Your task to perform on an android device: Search for the best Nike running shoes on Nike.com Image 0: 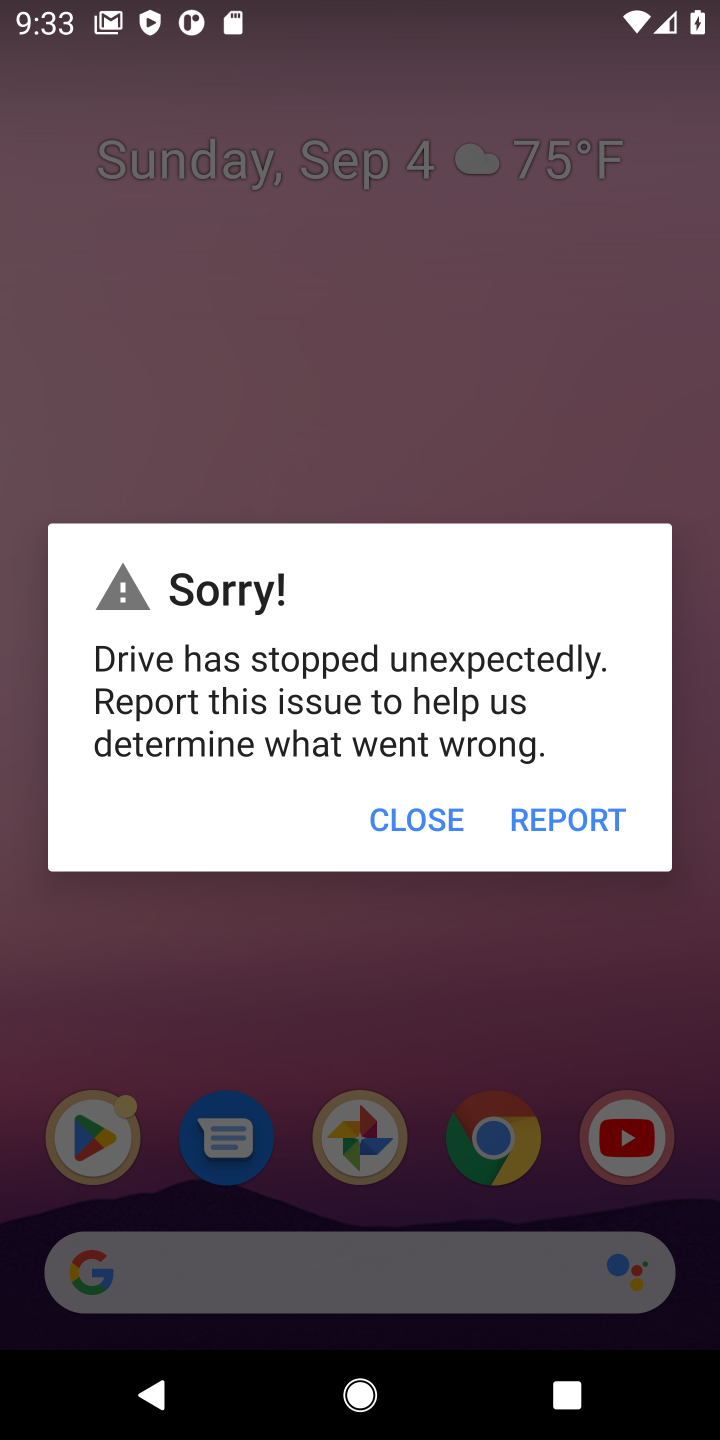
Step 0: press home button
Your task to perform on an android device: Search for the best Nike running shoes on Nike.com Image 1: 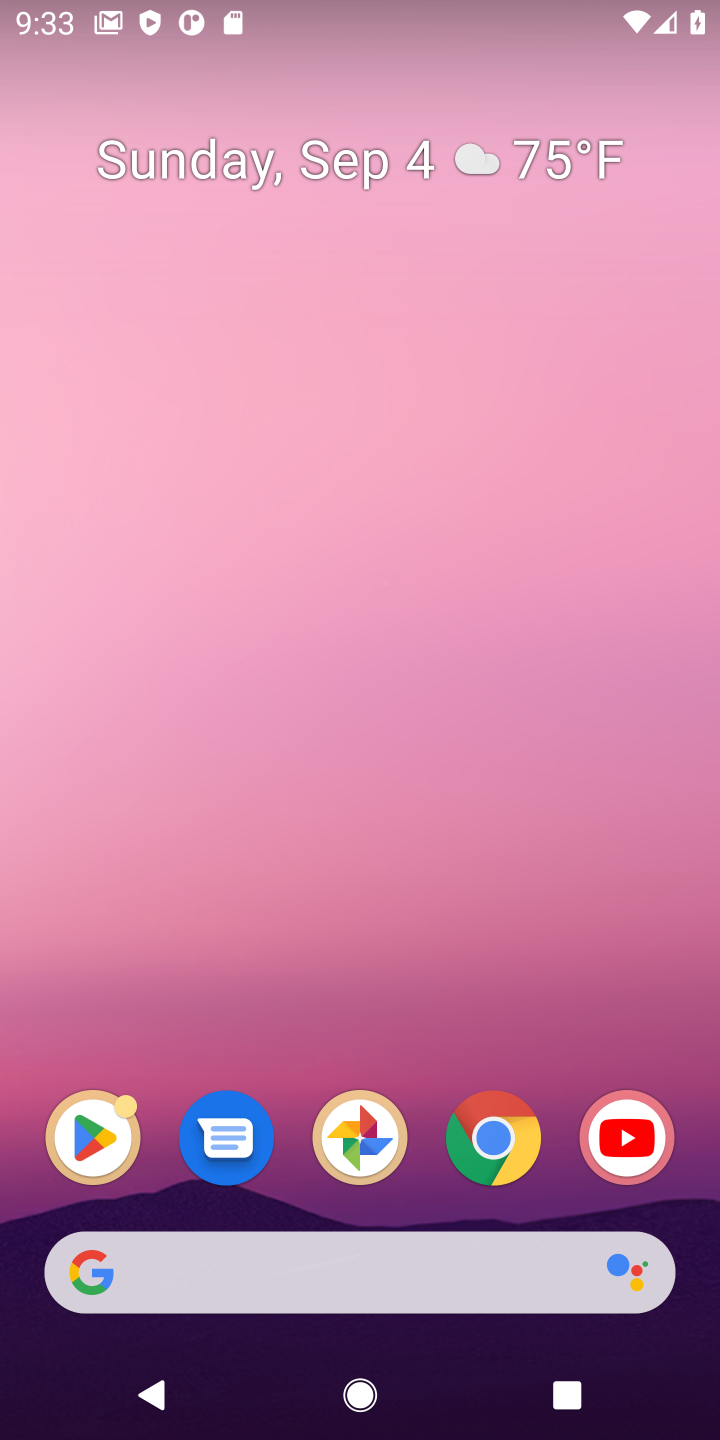
Step 1: click (505, 1138)
Your task to perform on an android device: Search for the best Nike running shoes on Nike.com Image 2: 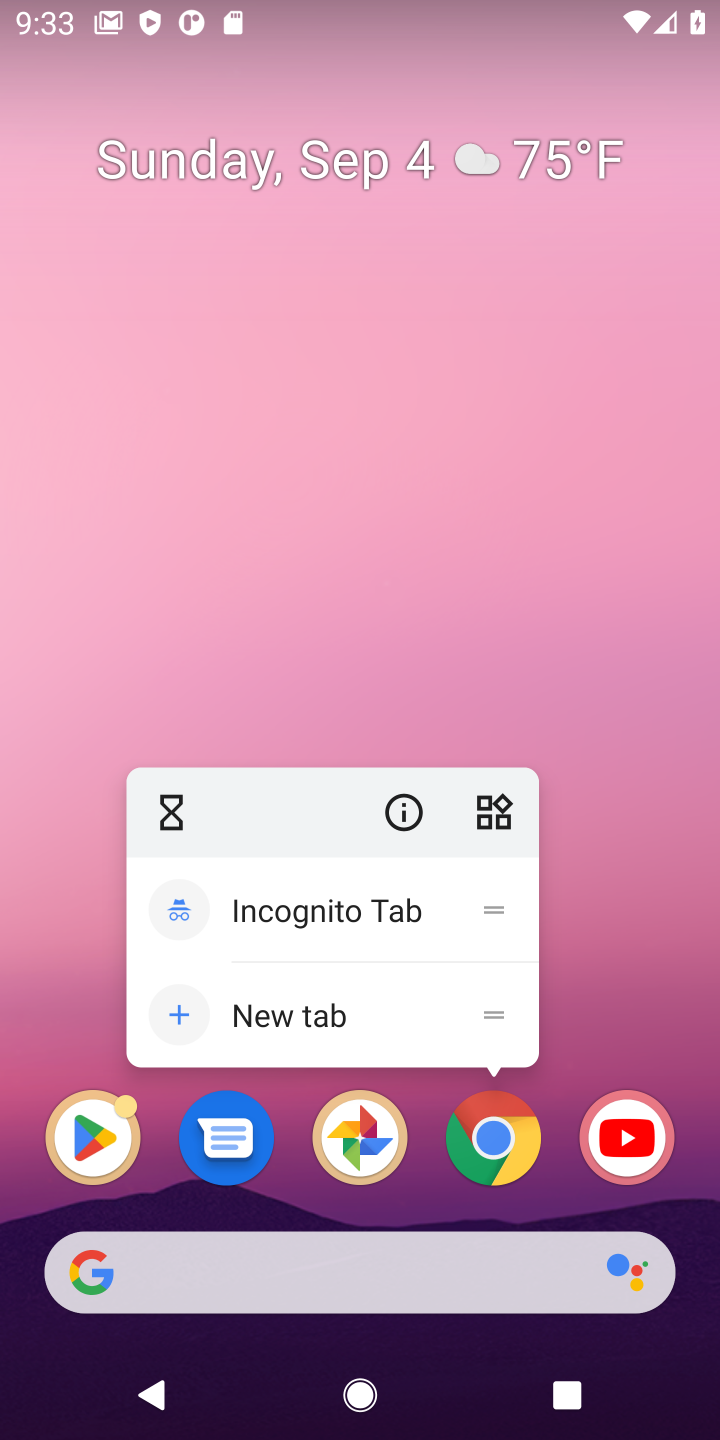
Step 2: click (501, 1144)
Your task to perform on an android device: Search for the best Nike running shoes on Nike.com Image 3: 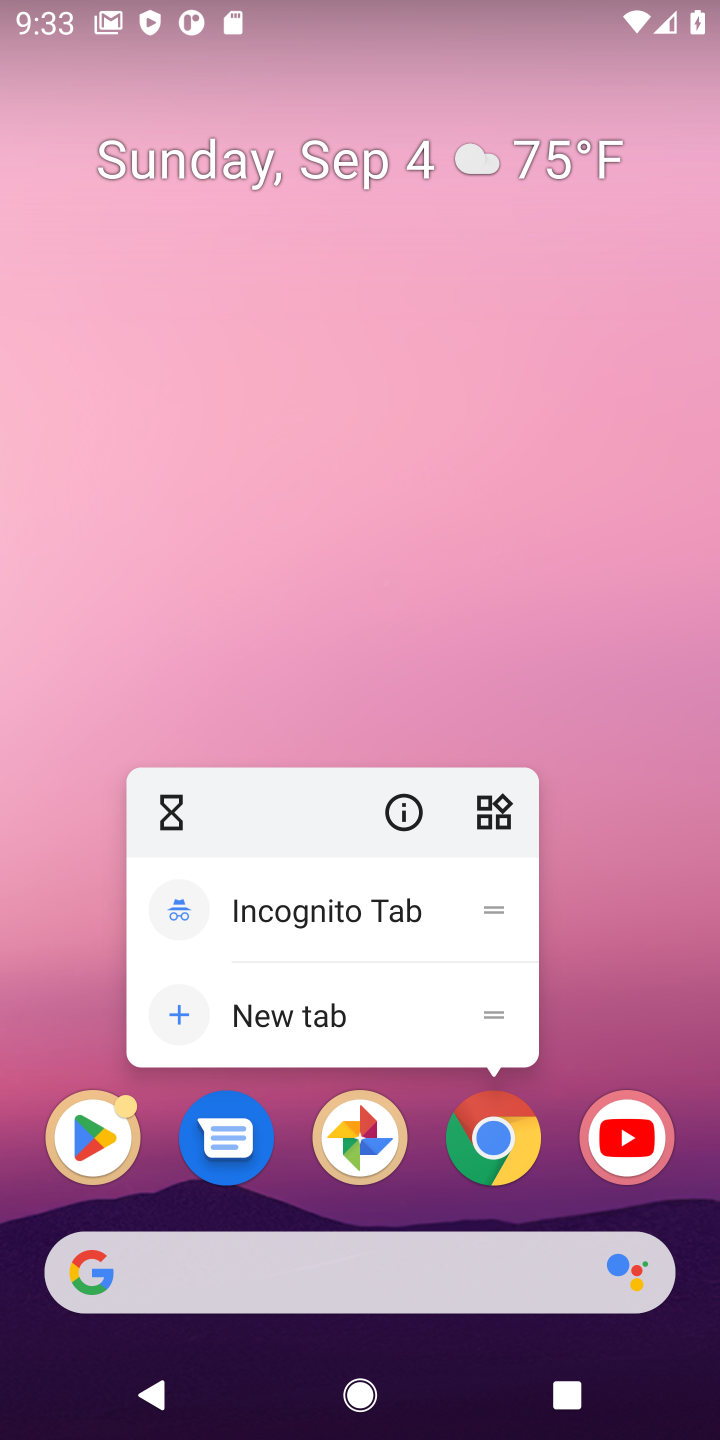
Step 3: click (501, 1144)
Your task to perform on an android device: Search for the best Nike running shoes on Nike.com Image 4: 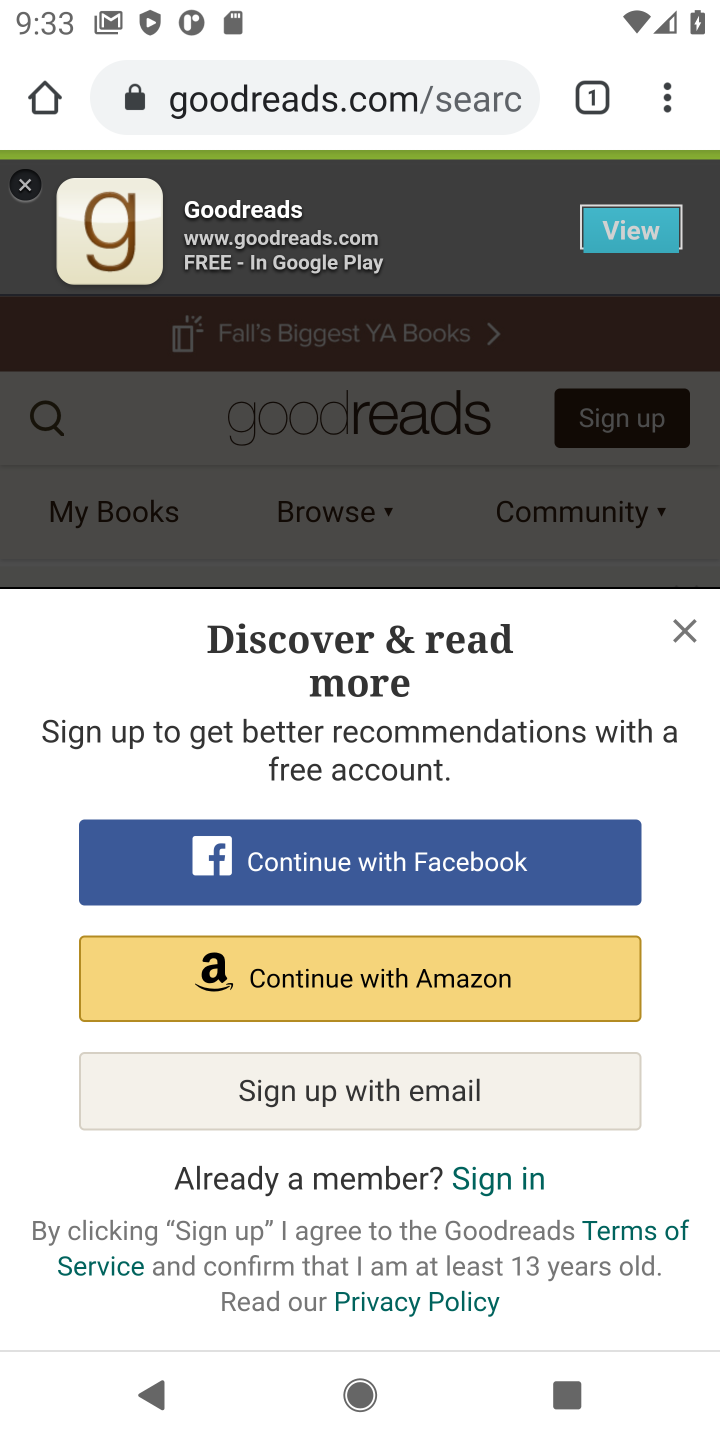
Step 4: click (295, 96)
Your task to perform on an android device: Search for the best Nike running shoes on Nike.com Image 5: 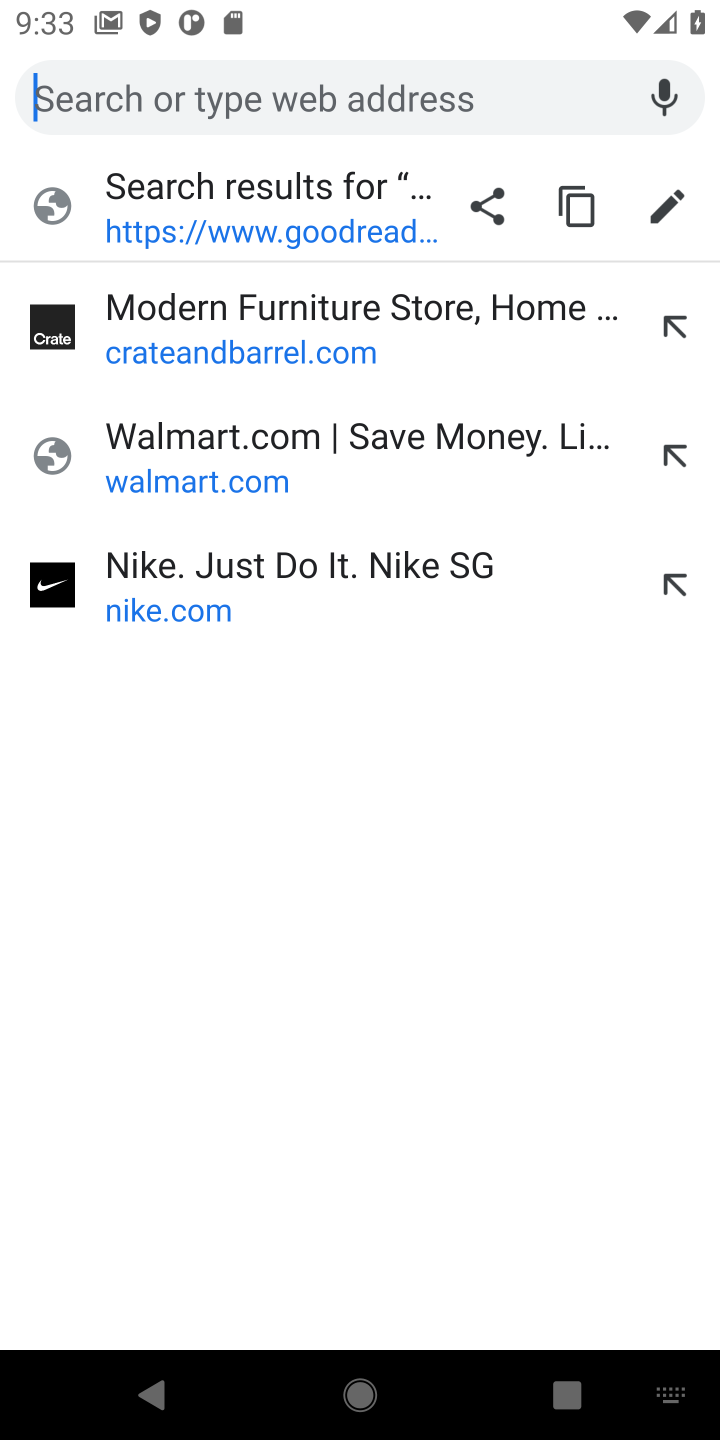
Step 5: type "nike.com"
Your task to perform on an android device: Search for the best Nike running shoes on Nike.com Image 6: 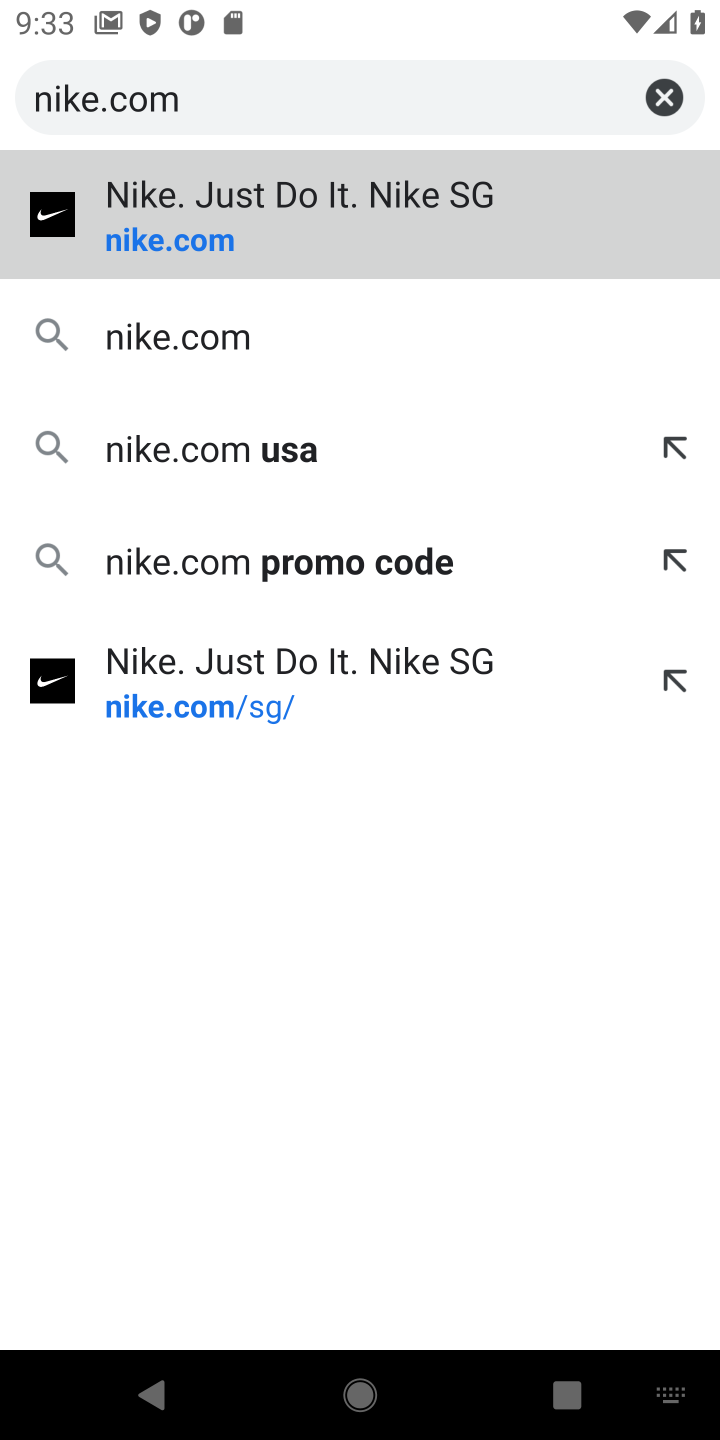
Step 6: click (354, 250)
Your task to perform on an android device: Search for the best Nike running shoes on Nike.com Image 7: 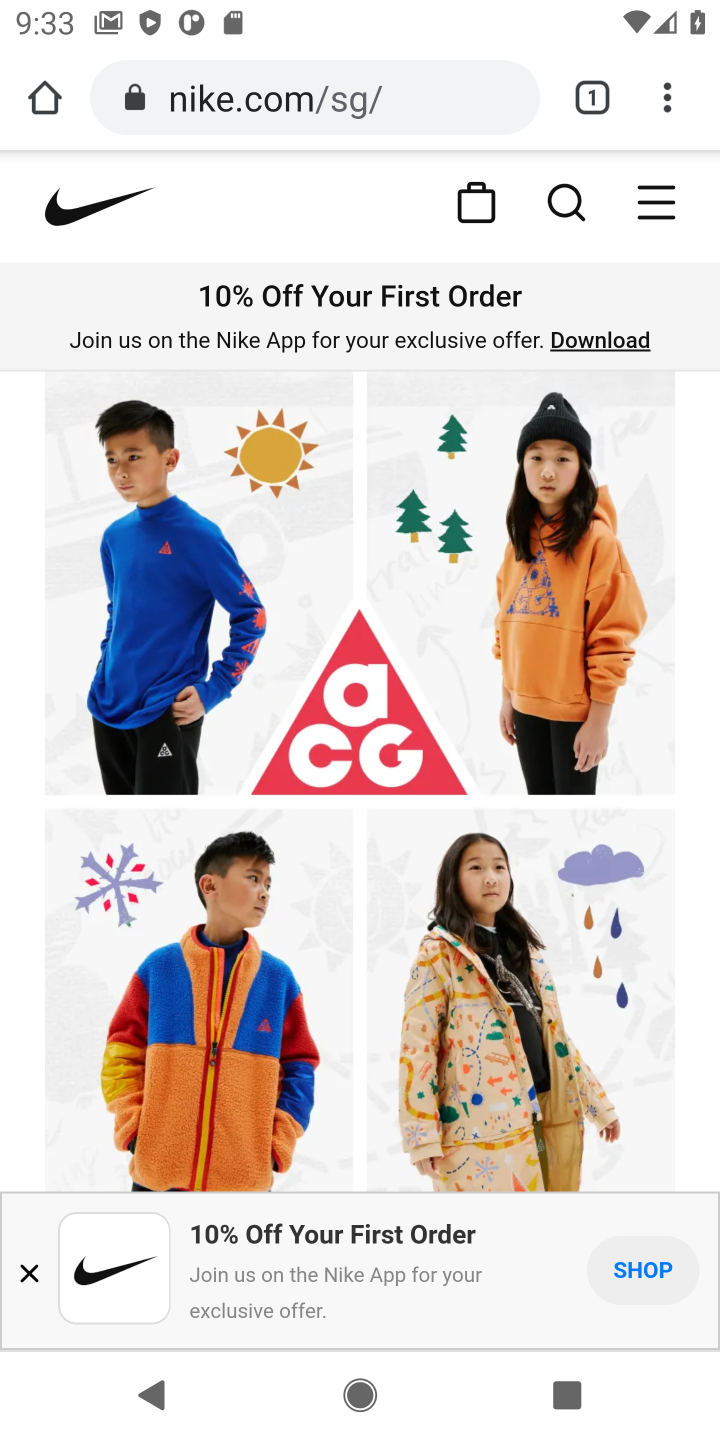
Step 7: click (580, 202)
Your task to perform on an android device: Search for the best Nike running shoes on Nike.com Image 8: 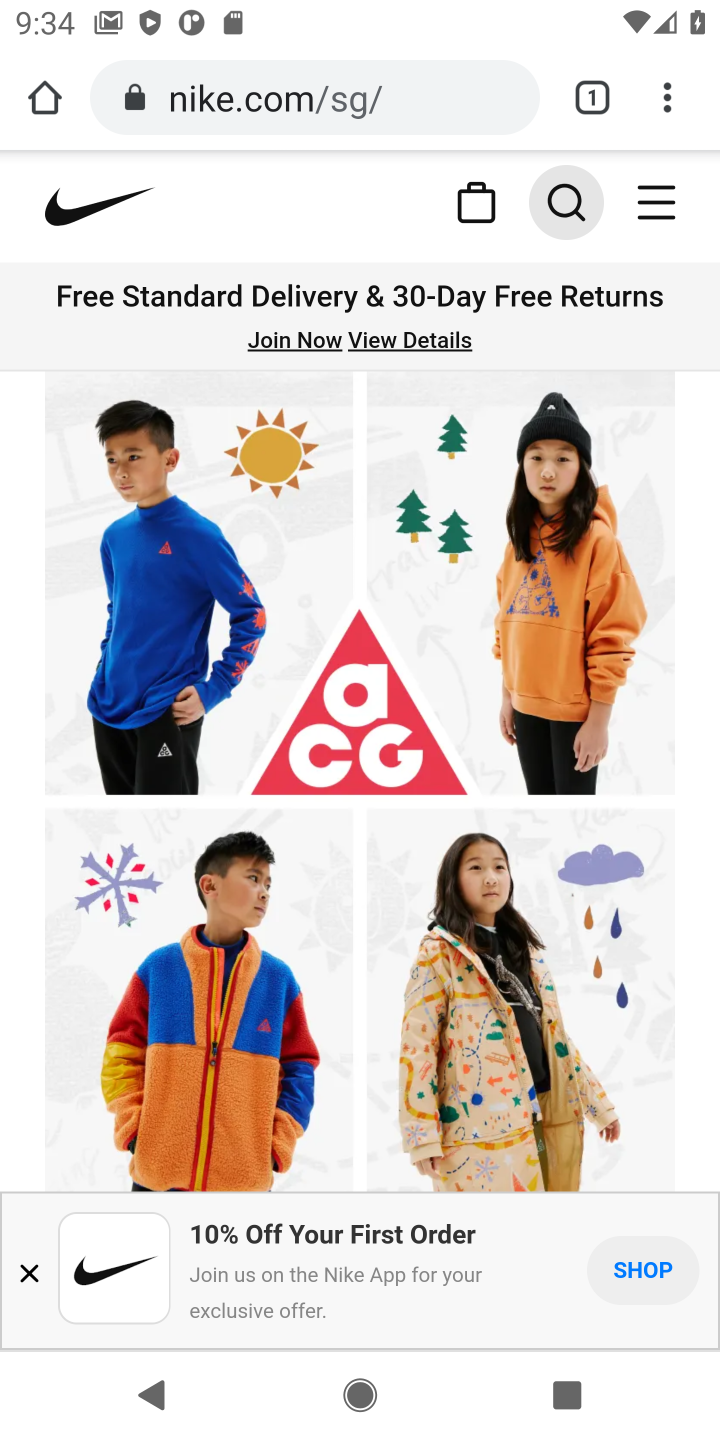
Step 8: click (580, 202)
Your task to perform on an android device: Search for the best Nike running shoes on Nike.com Image 9: 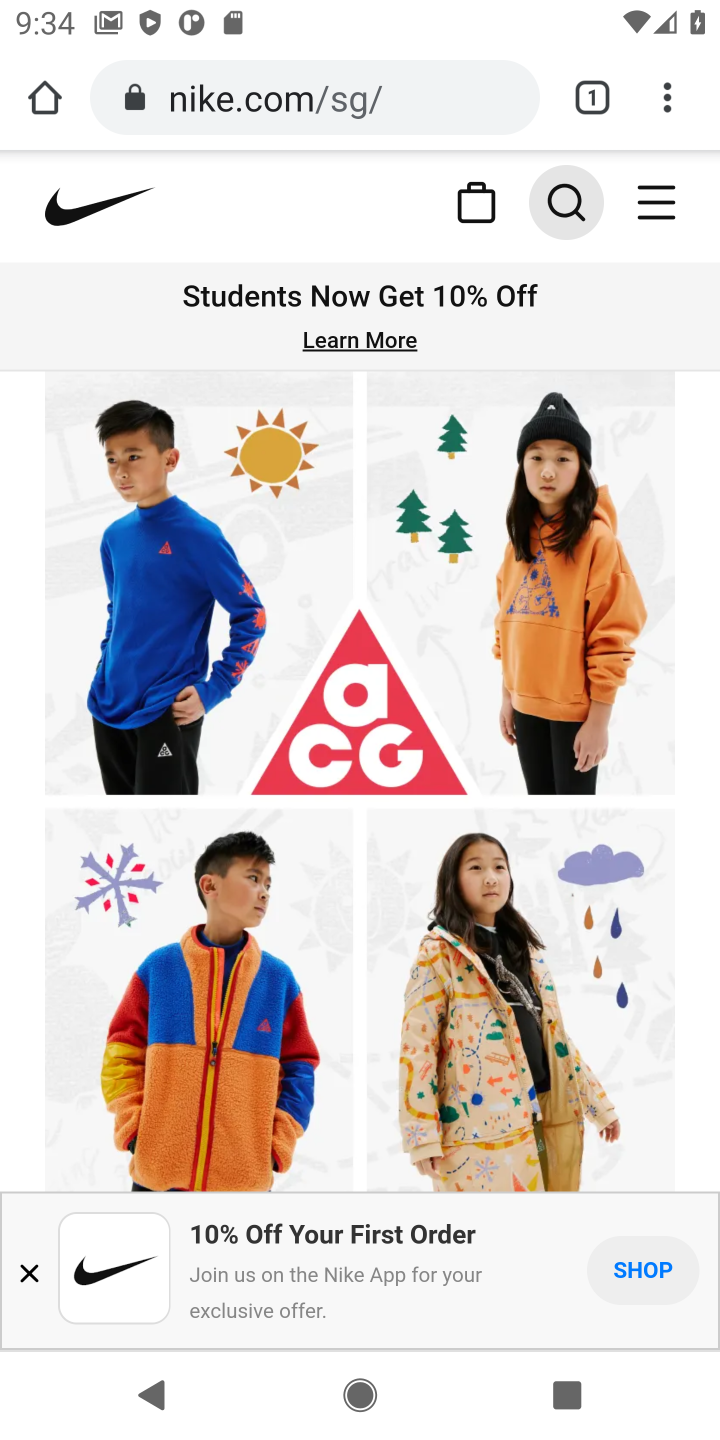
Step 9: click (543, 198)
Your task to perform on an android device: Search for the best Nike running shoes on Nike.com Image 10: 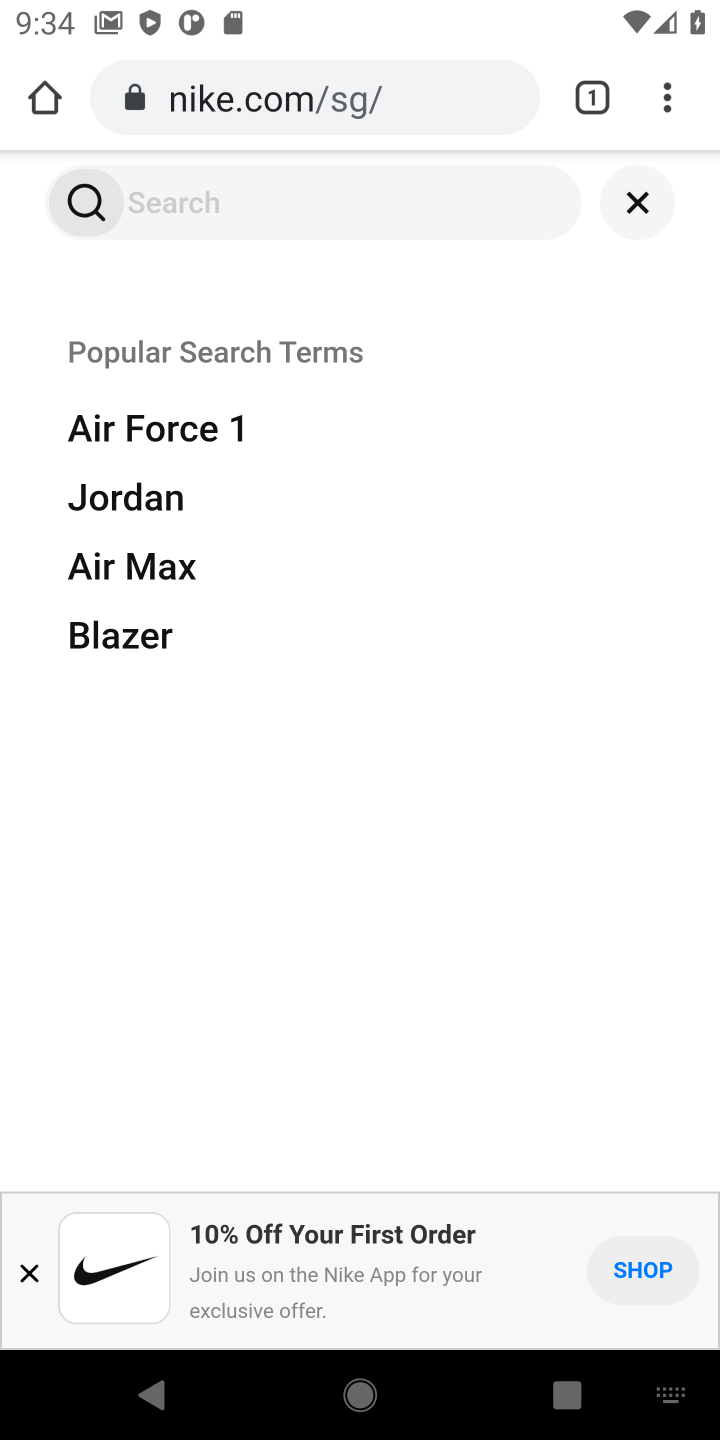
Step 10: click (308, 213)
Your task to perform on an android device: Search for the best Nike running shoes on Nike.com Image 11: 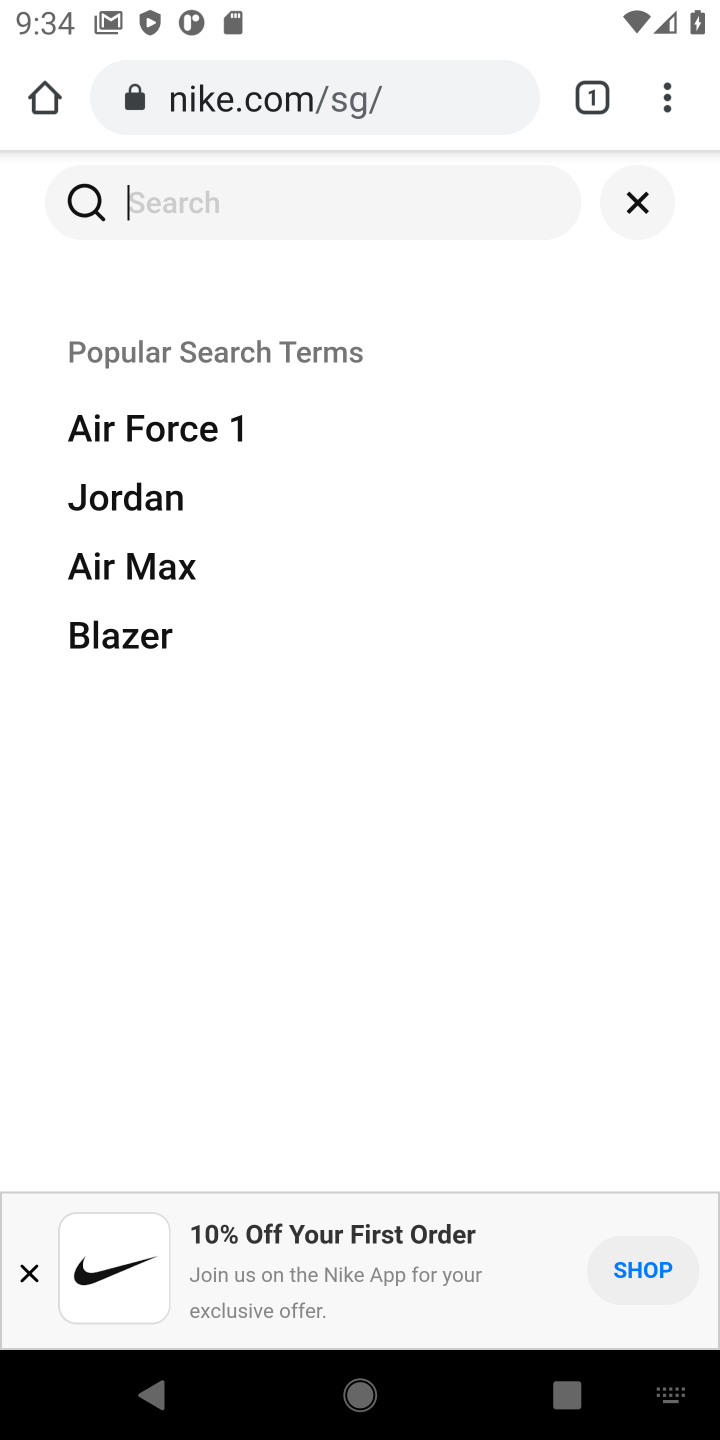
Step 11: type "best nike running shoes"
Your task to perform on an android device: Search for the best Nike running shoes on Nike.com Image 12: 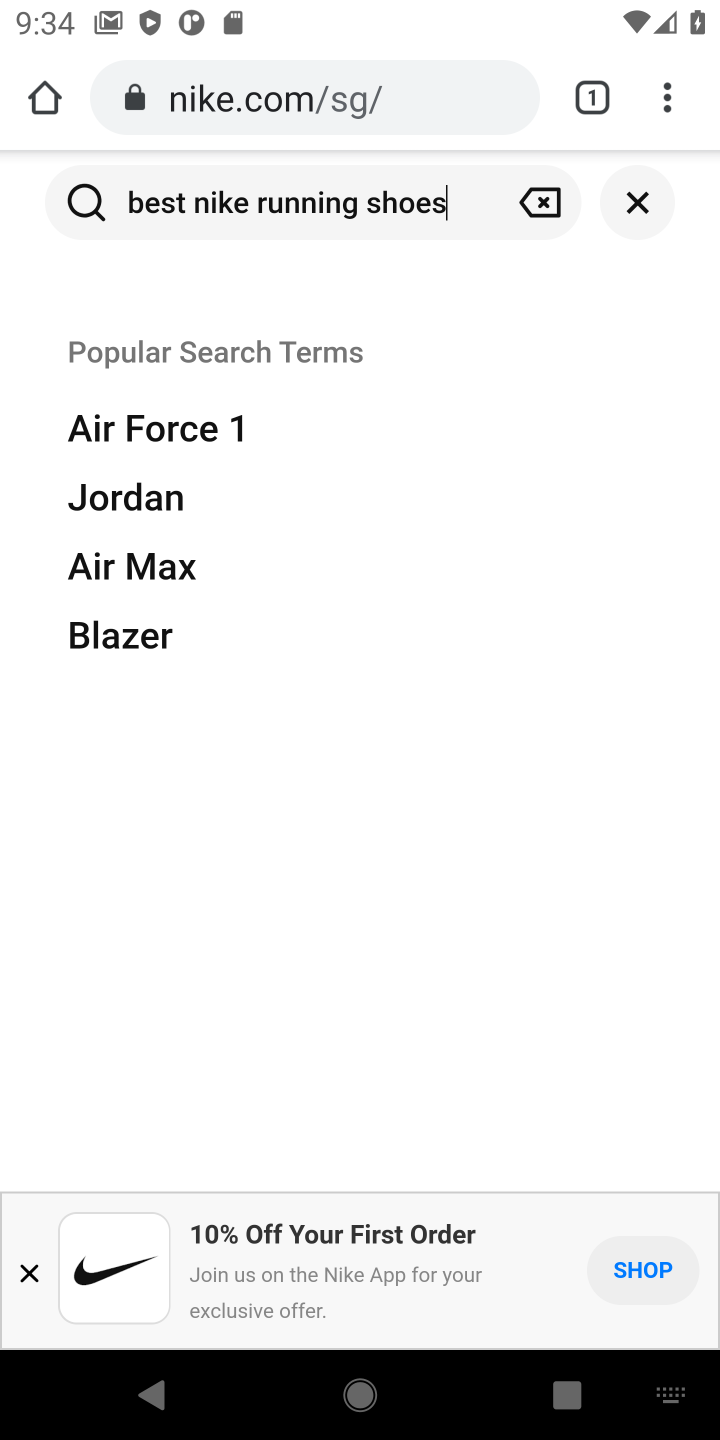
Step 12: press enter
Your task to perform on an android device: Search for the best Nike running shoes on Nike.com Image 13: 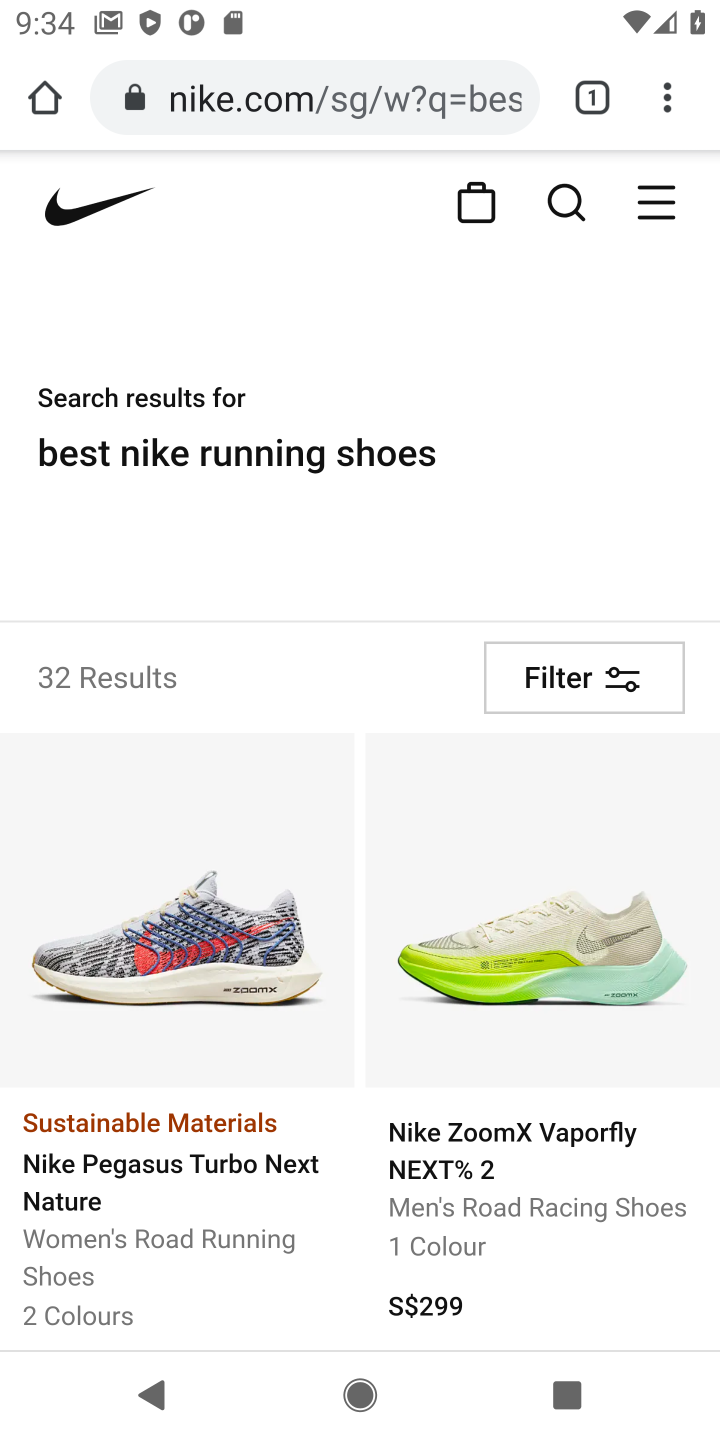
Step 13: task complete